Your task to perform on an android device: Open network settings Image 0: 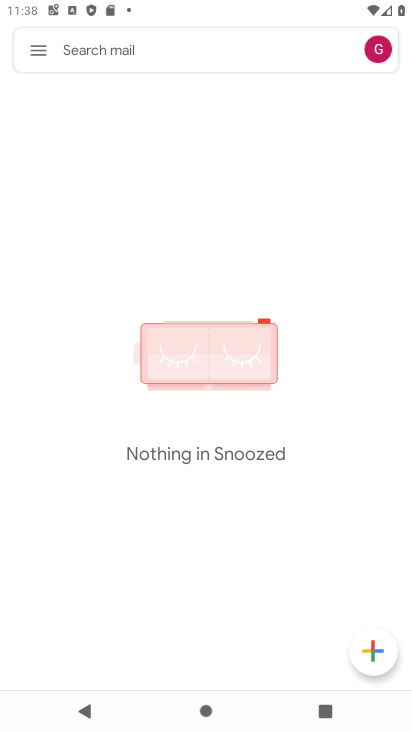
Step 0: drag from (198, 12) to (105, 402)
Your task to perform on an android device: Open network settings Image 1: 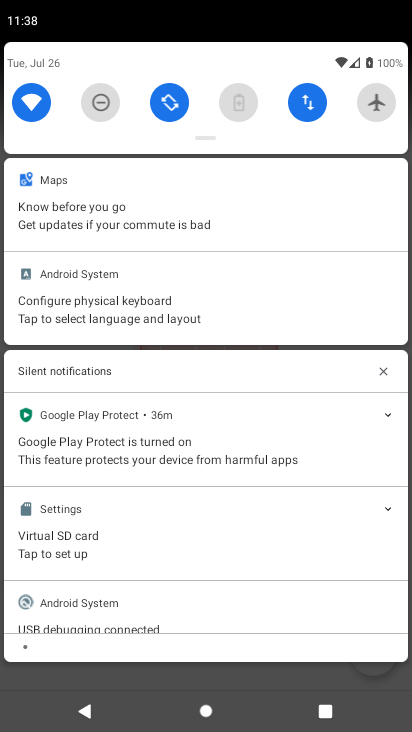
Step 1: click (308, 115)
Your task to perform on an android device: Open network settings Image 2: 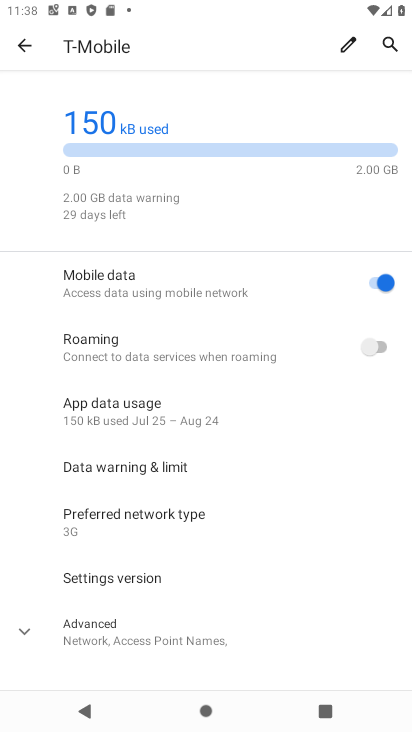
Step 2: task complete